Your task to perform on an android device: Go to Reddit.com Image 0: 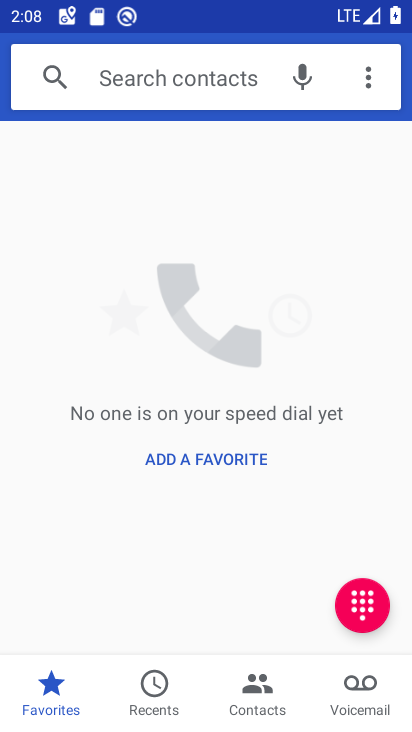
Step 0: press home button
Your task to perform on an android device: Go to Reddit.com Image 1: 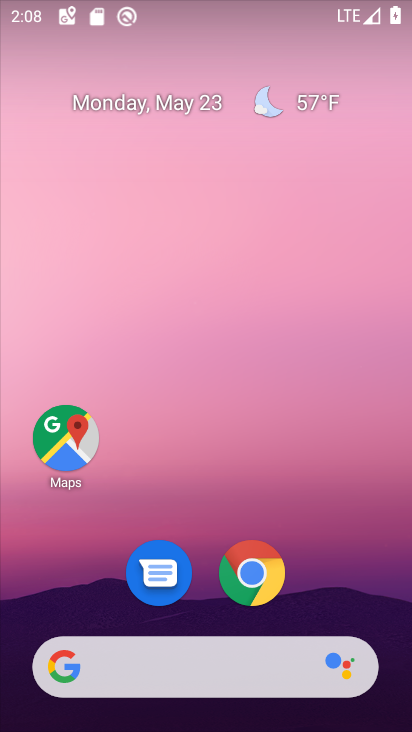
Step 1: click (248, 558)
Your task to perform on an android device: Go to Reddit.com Image 2: 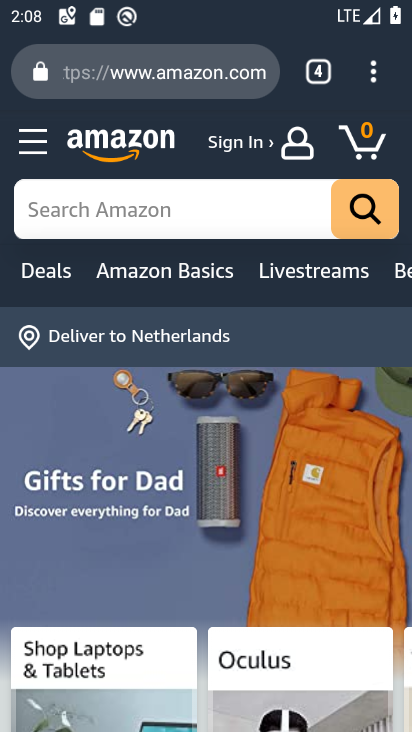
Step 2: click (301, 71)
Your task to perform on an android device: Go to Reddit.com Image 3: 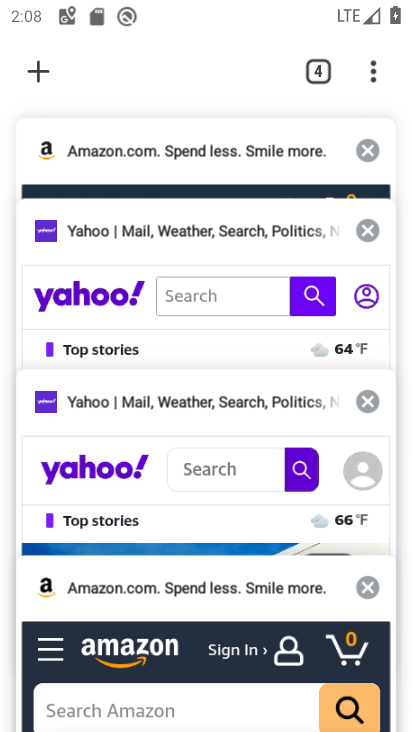
Step 3: drag from (148, 246) to (65, 530)
Your task to perform on an android device: Go to Reddit.com Image 4: 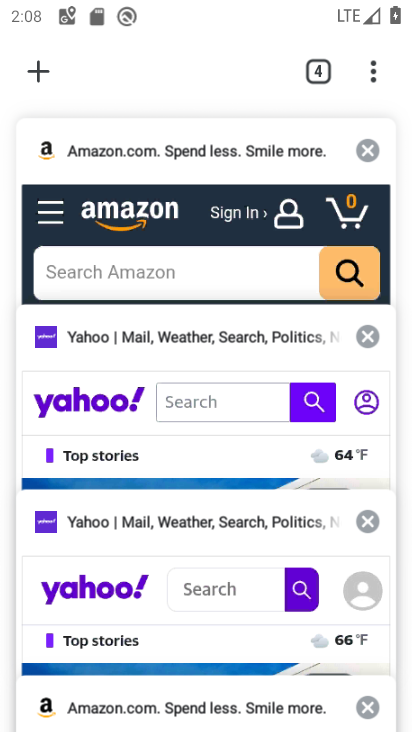
Step 4: click (36, 58)
Your task to perform on an android device: Go to Reddit.com Image 5: 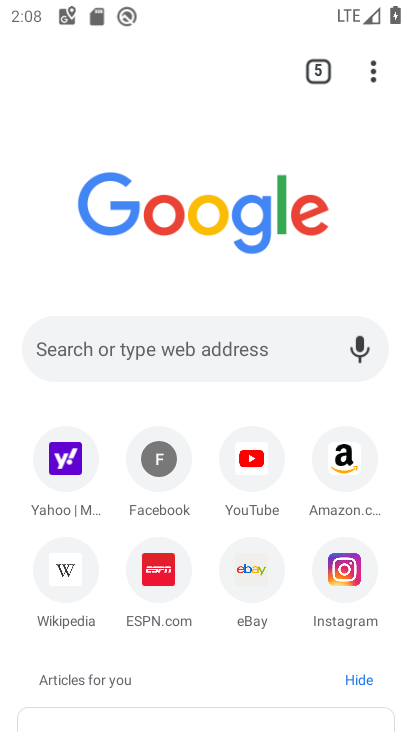
Step 5: click (153, 356)
Your task to perform on an android device: Go to Reddit.com Image 6: 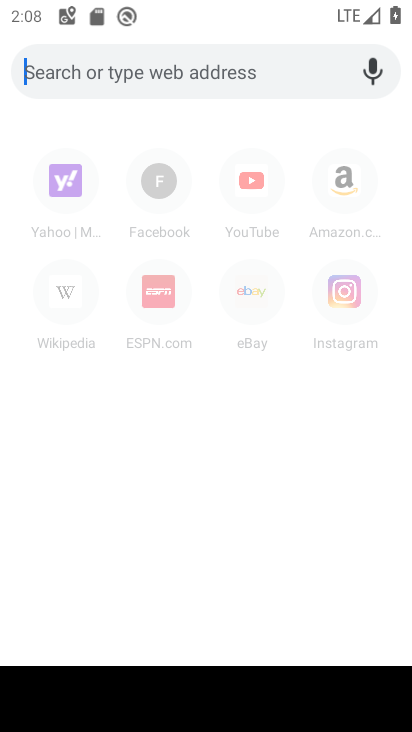
Step 6: type "Reddit.com"
Your task to perform on an android device: Go to Reddit.com Image 7: 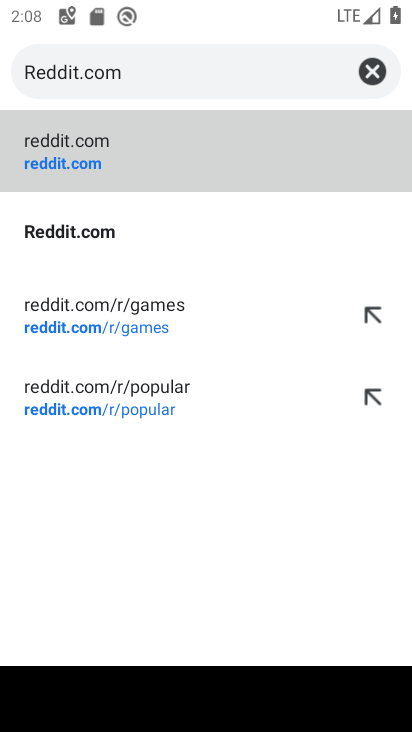
Step 7: click (196, 137)
Your task to perform on an android device: Go to Reddit.com Image 8: 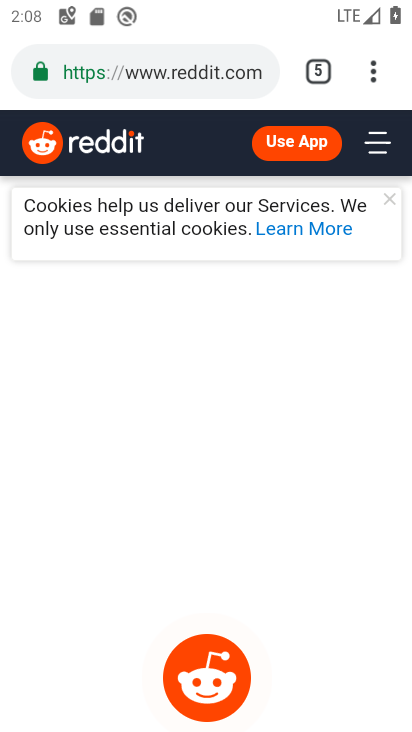
Step 8: task complete